Your task to perform on an android device: Go to CNN.com Image 0: 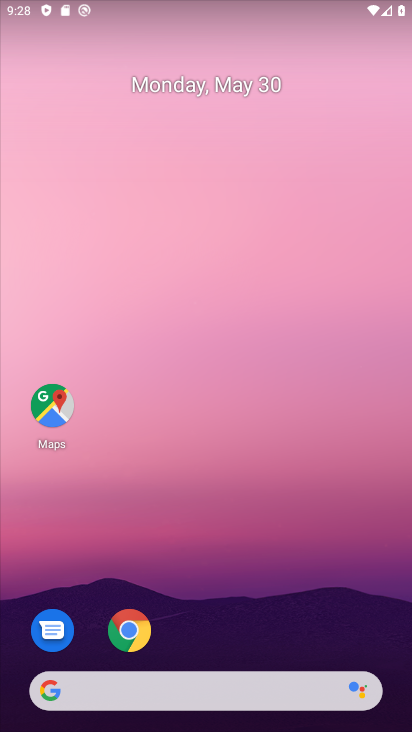
Step 0: click (188, 679)
Your task to perform on an android device: Go to CNN.com Image 1: 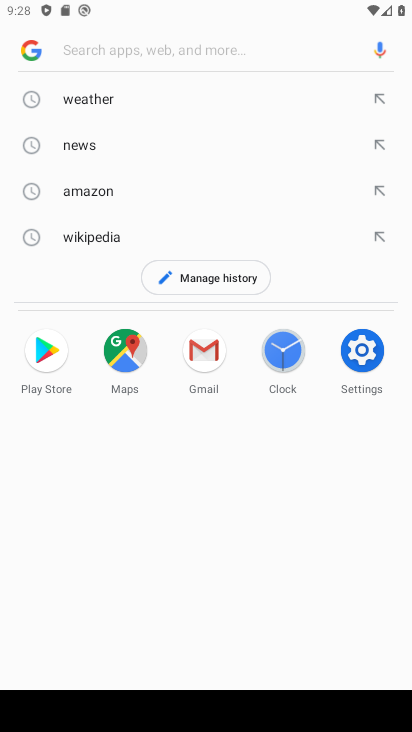
Step 1: type "cnn.com"
Your task to perform on an android device: Go to CNN.com Image 2: 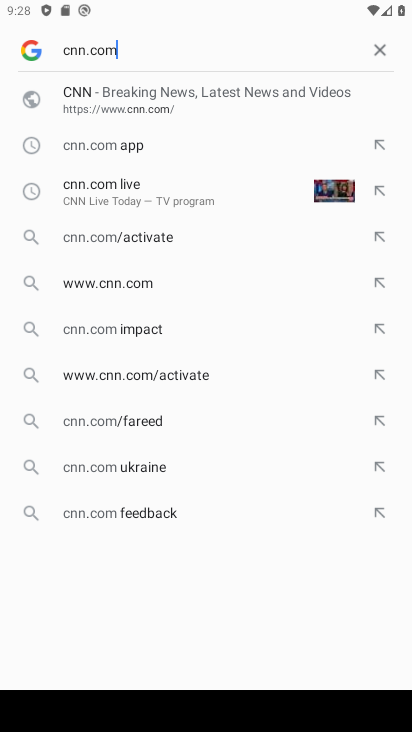
Step 2: click (120, 83)
Your task to perform on an android device: Go to CNN.com Image 3: 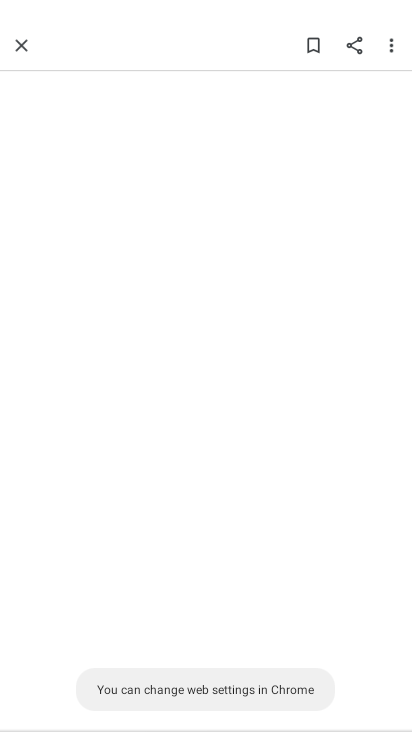
Step 3: task complete